Your task to perform on an android device: Go to calendar. Show me events next week Image 0: 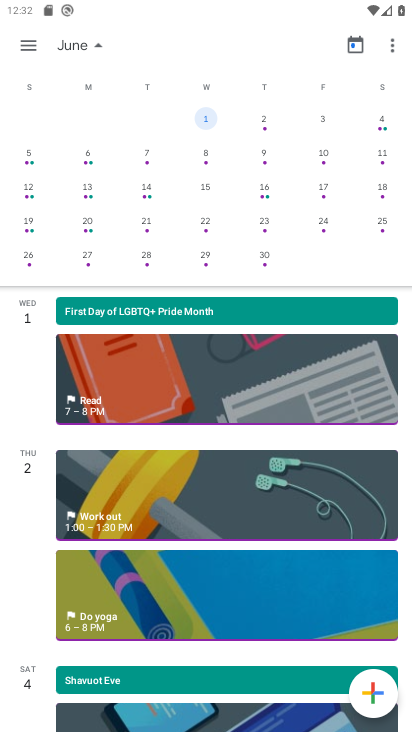
Step 0: task complete